Your task to perform on an android device: Open Android settings Image 0: 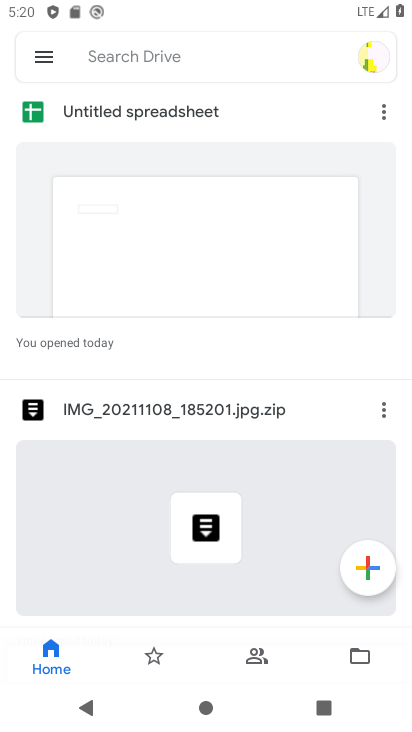
Step 0: press home button
Your task to perform on an android device: Open Android settings Image 1: 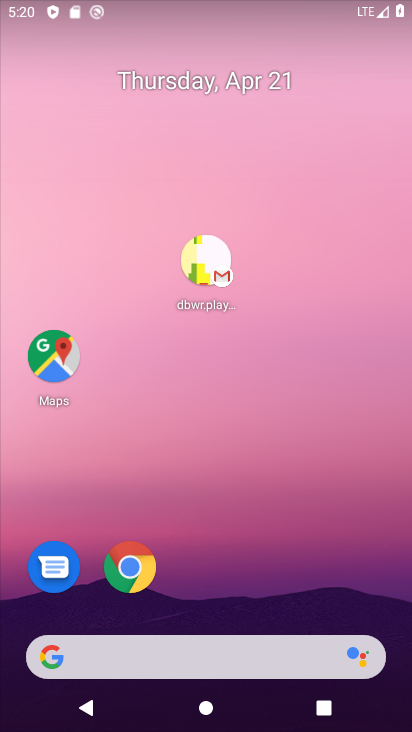
Step 1: drag from (211, 582) to (270, 158)
Your task to perform on an android device: Open Android settings Image 2: 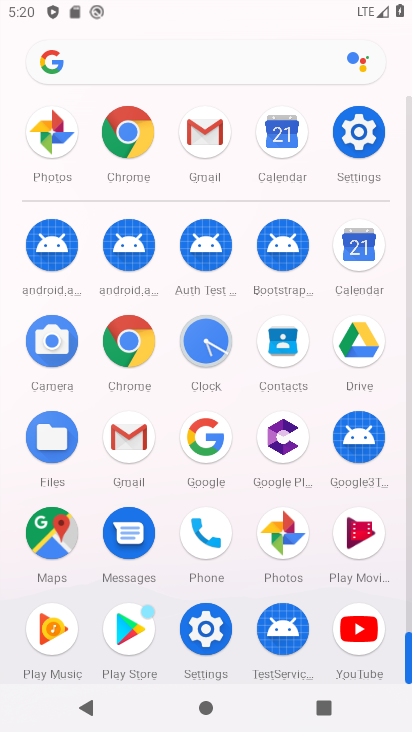
Step 2: click (374, 139)
Your task to perform on an android device: Open Android settings Image 3: 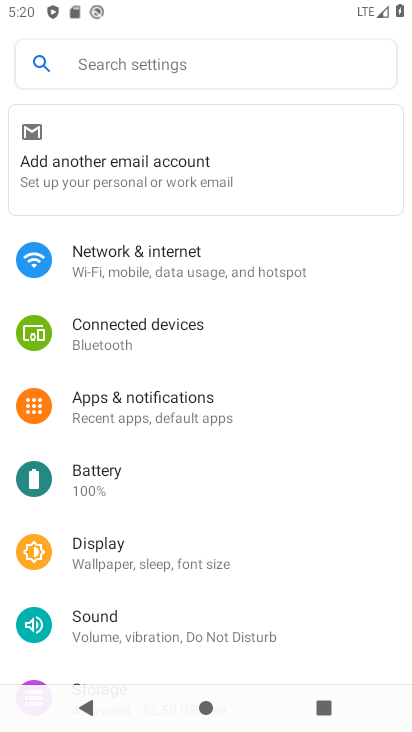
Step 3: drag from (134, 553) to (262, 156)
Your task to perform on an android device: Open Android settings Image 4: 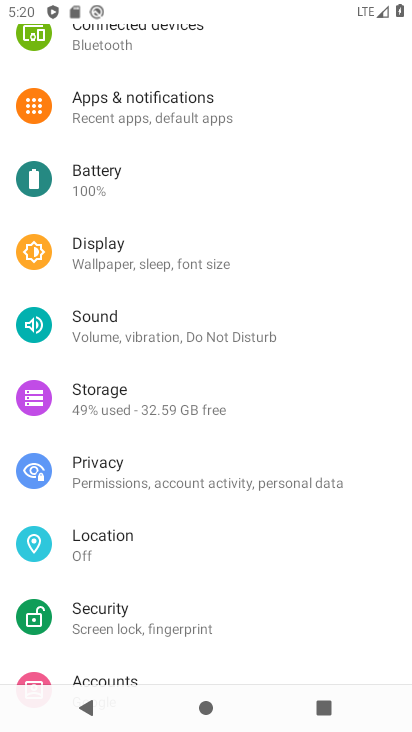
Step 4: drag from (141, 548) to (206, 161)
Your task to perform on an android device: Open Android settings Image 5: 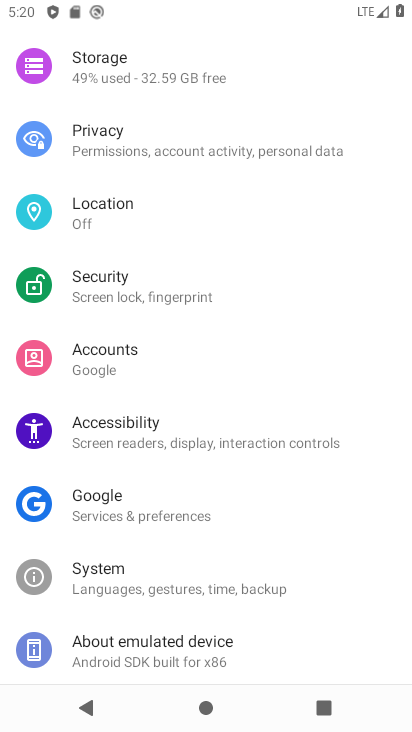
Step 5: drag from (122, 540) to (154, 355)
Your task to perform on an android device: Open Android settings Image 6: 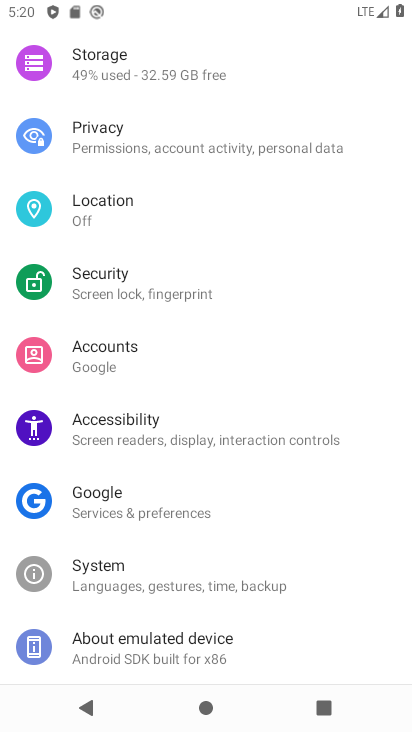
Step 6: click (134, 633)
Your task to perform on an android device: Open Android settings Image 7: 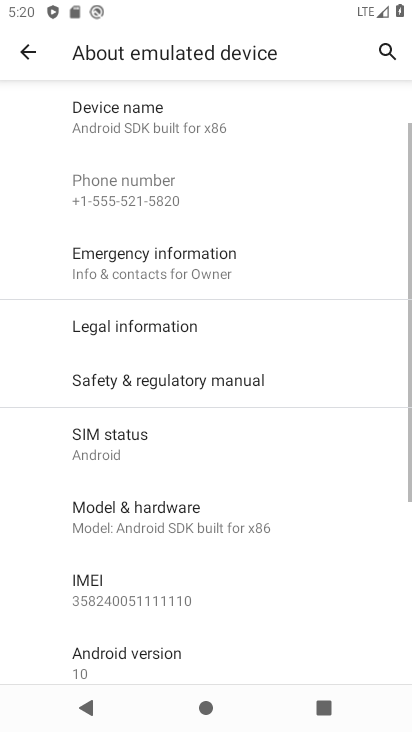
Step 7: drag from (115, 540) to (162, 295)
Your task to perform on an android device: Open Android settings Image 8: 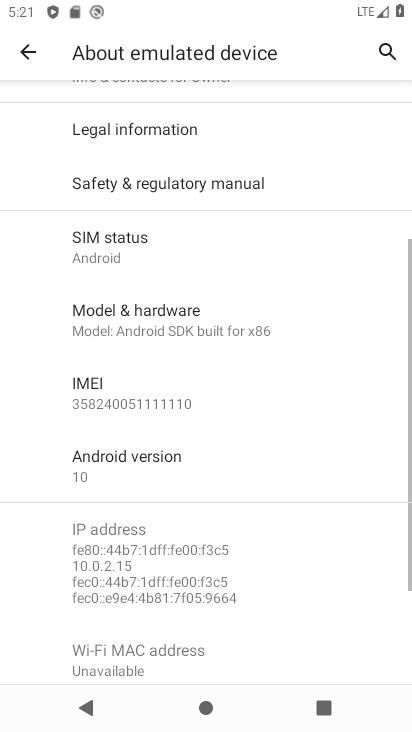
Step 8: click (124, 450)
Your task to perform on an android device: Open Android settings Image 9: 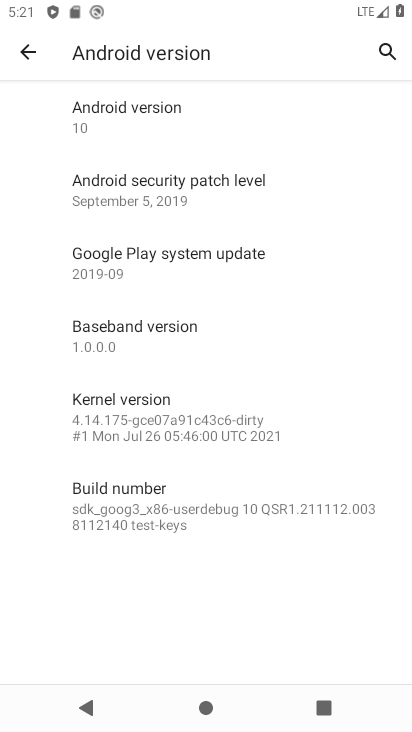
Step 9: task complete